Your task to perform on an android device: Open maps Image 0: 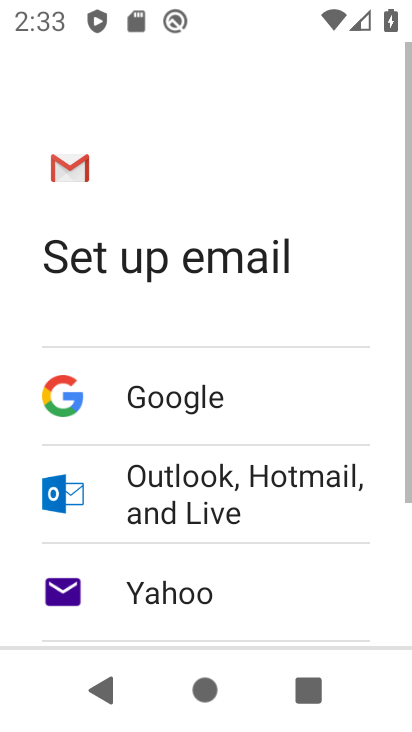
Step 0: press home button
Your task to perform on an android device: Open maps Image 1: 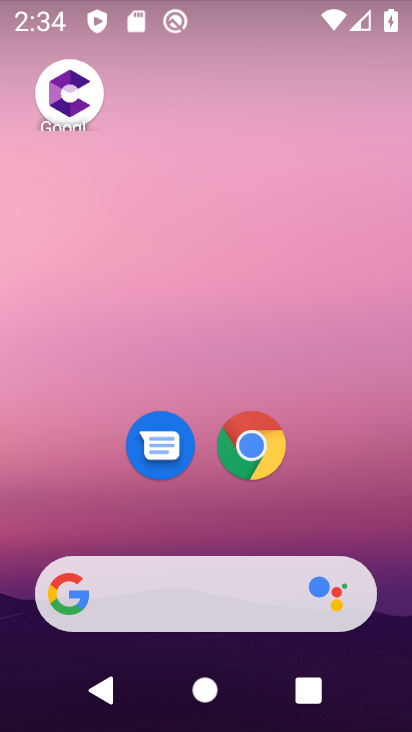
Step 1: drag from (353, 516) to (324, 43)
Your task to perform on an android device: Open maps Image 2: 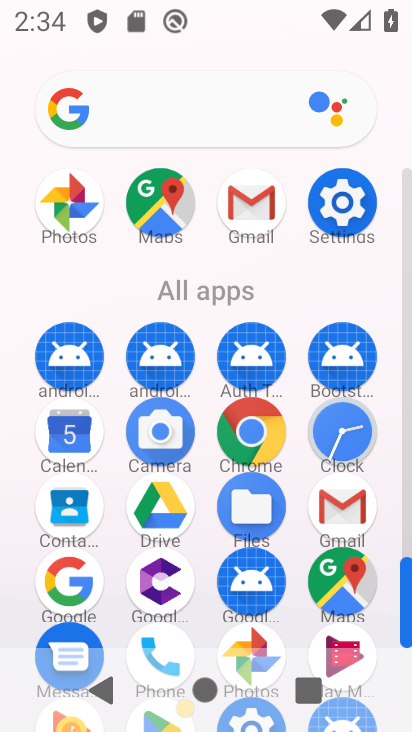
Step 2: click (343, 578)
Your task to perform on an android device: Open maps Image 3: 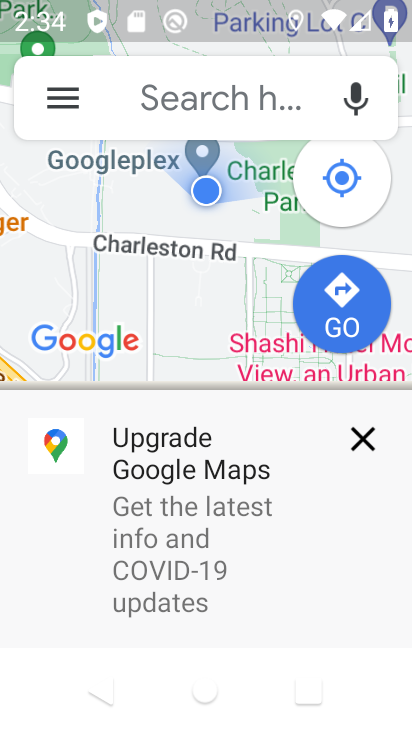
Step 3: task complete